Your task to perform on an android device: turn off improve location accuracy Image 0: 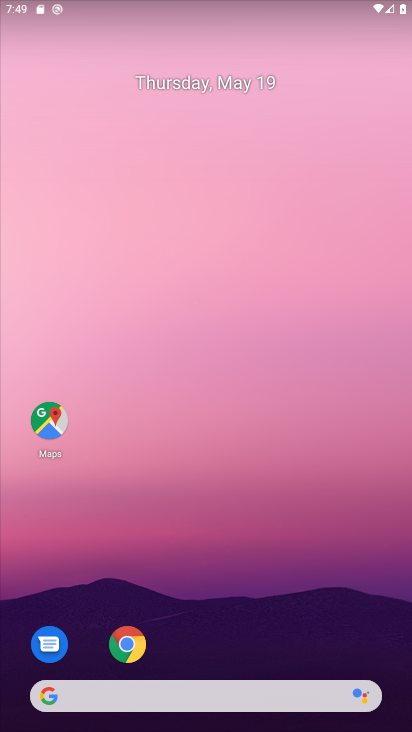
Step 0: drag from (297, 690) to (275, 82)
Your task to perform on an android device: turn off improve location accuracy Image 1: 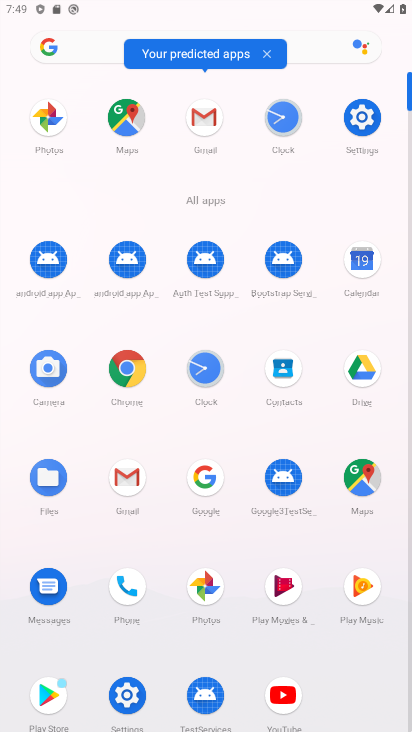
Step 1: click (357, 126)
Your task to perform on an android device: turn off improve location accuracy Image 2: 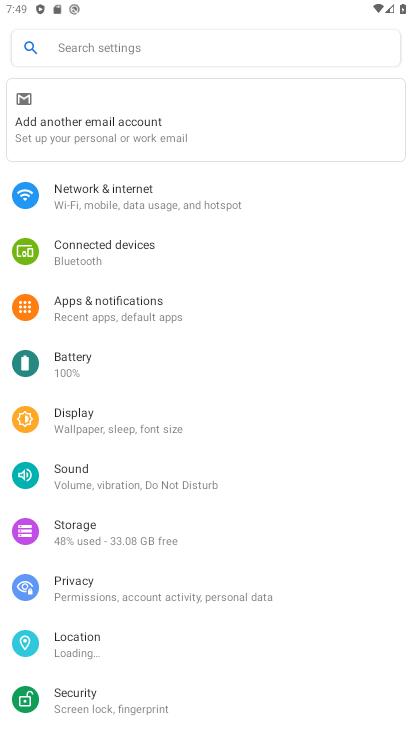
Step 2: click (120, 647)
Your task to perform on an android device: turn off improve location accuracy Image 3: 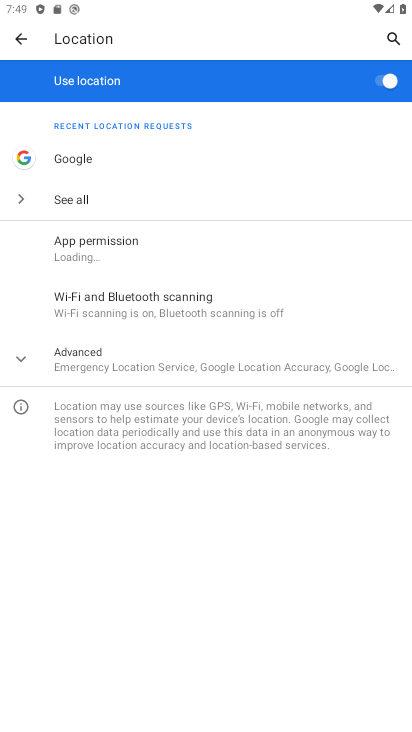
Step 3: click (192, 358)
Your task to perform on an android device: turn off improve location accuracy Image 4: 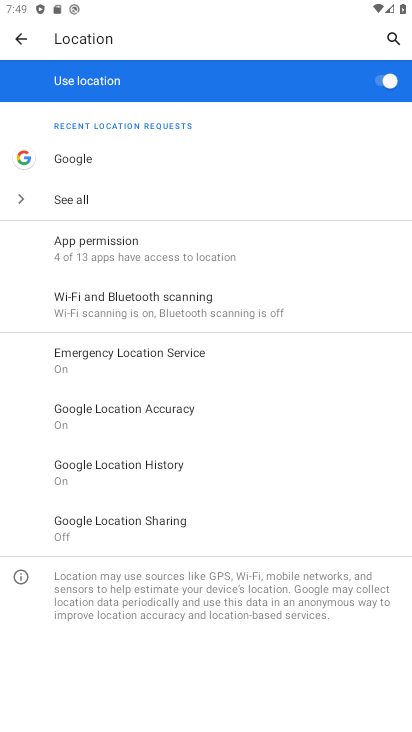
Step 4: click (206, 418)
Your task to perform on an android device: turn off improve location accuracy Image 5: 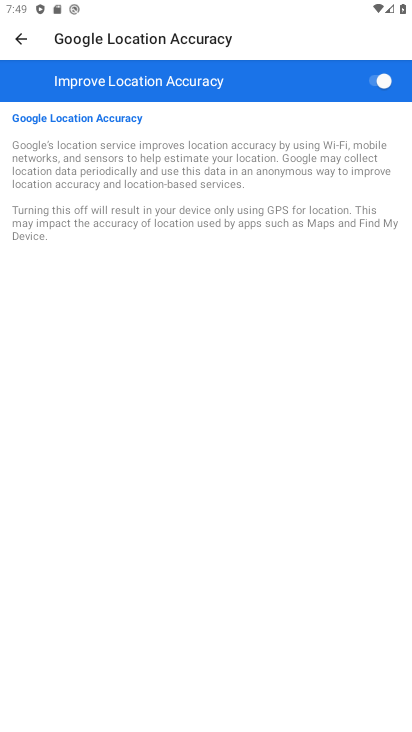
Step 5: click (386, 87)
Your task to perform on an android device: turn off improve location accuracy Image 6: 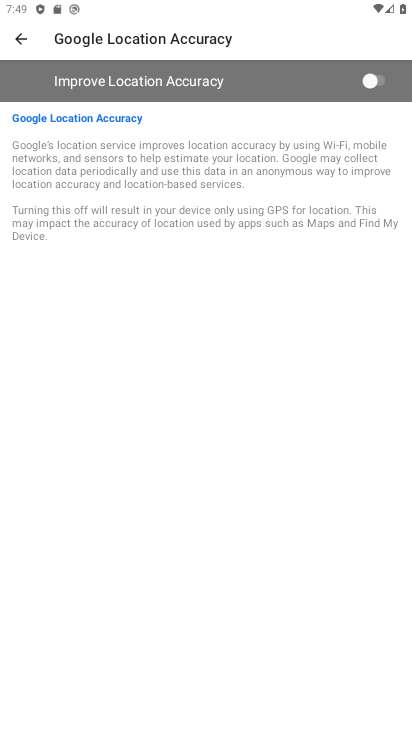
Step 6: task complete